Your task to perform on an android device: turn on the 12-hour format for clock Image 0: 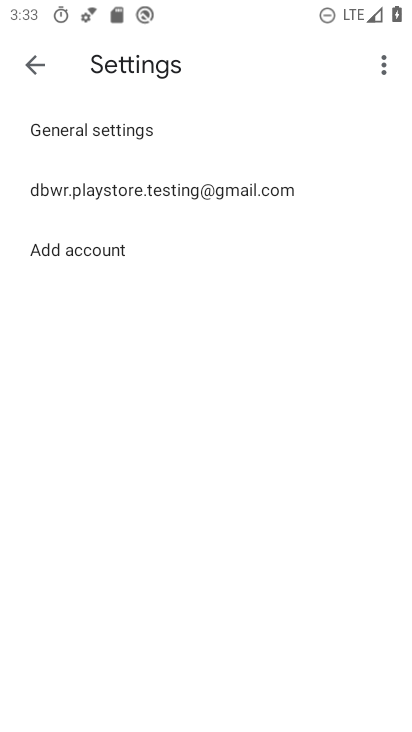
Step 0: press home button
Your task to perform on an android device: turn on the 12-hour format for clock Image 1: 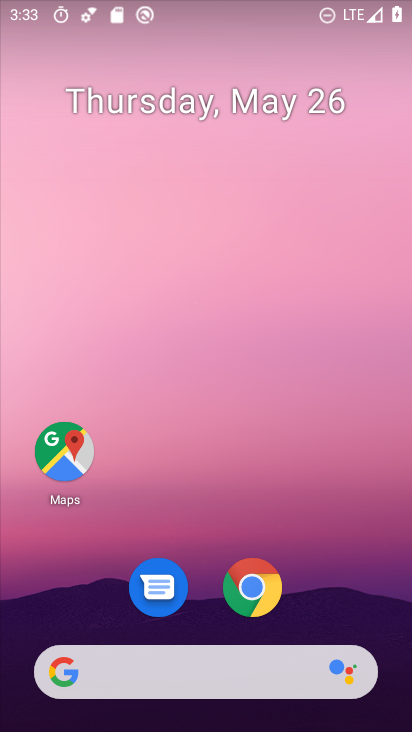
Step 1: drag from (337, 534) to (363, 95)
Your task to perform on an android device: turn on the 12-hour format for clock Image 2: 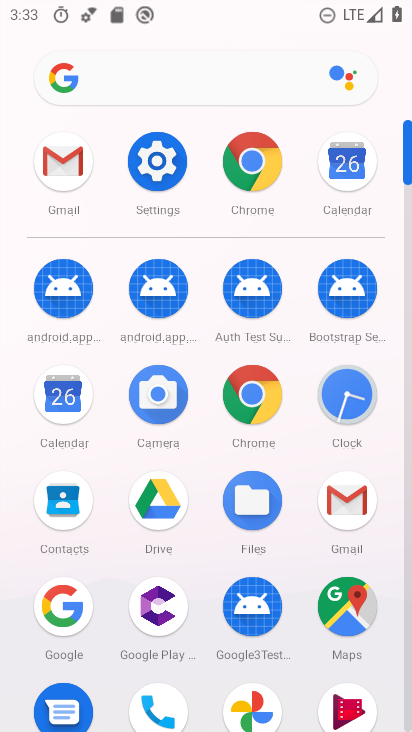
Step 2: click (358, 389)
Your task to perform on an android device: turn on the 12-hour format for clock Image 3: 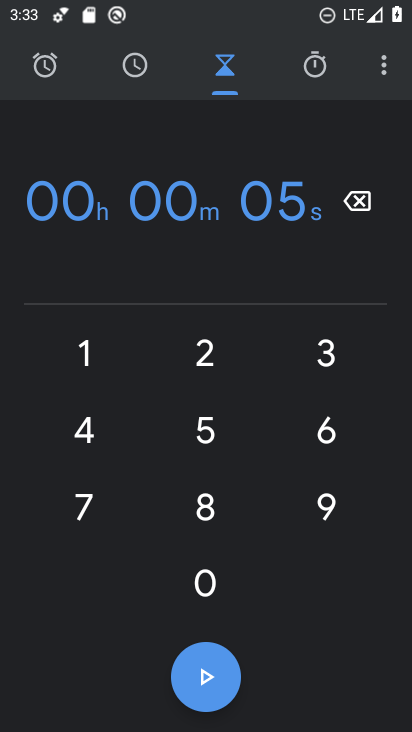
Step 3: click (391, 62)
Your task to perform on an android device: turn on the 12-hour format for clock Image 4: 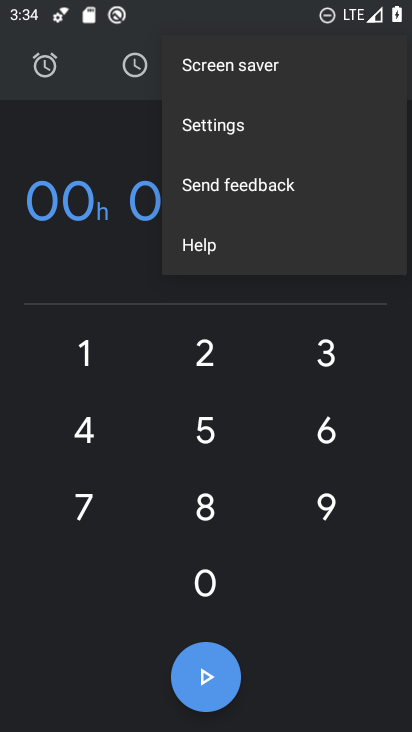
Step 4: click (249, 121)
Your task to perform on an android device: turn on the 12-hour format for clock Image 5: 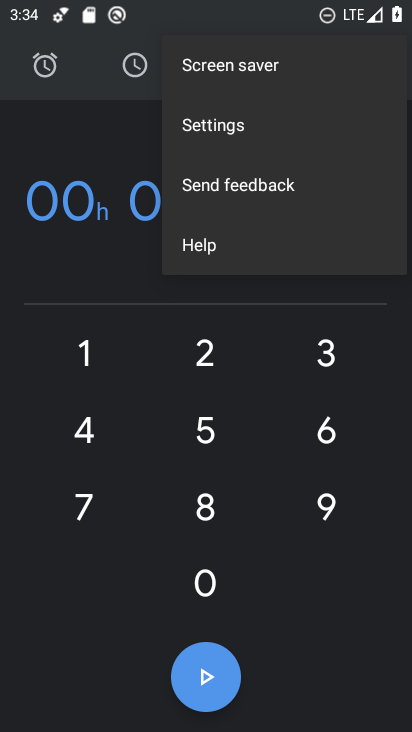
Step 5: click (240, 128)
Your task to perform on an android device: turn on the 12-hour format for clock Image 6: 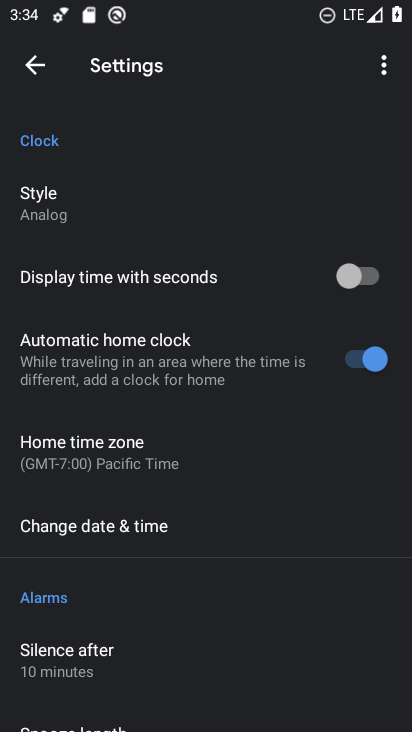
Step 6: click (111, 539)
Your task to perform on an android device: turn on the 12-hour format for clock Image 7: 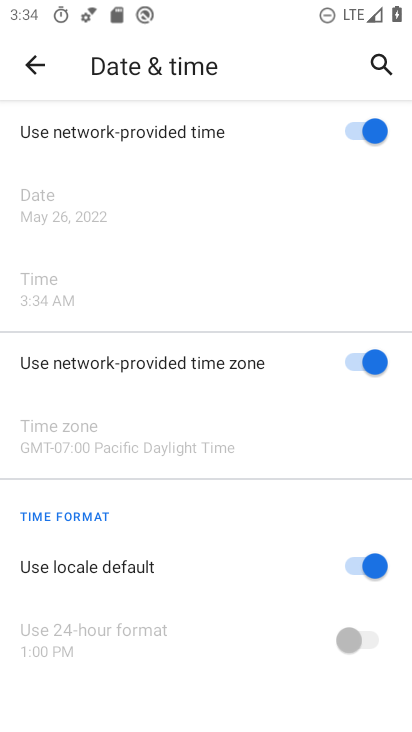
Step 7: task complete